Your task to perform on an android device: Open the web browser Image 0: 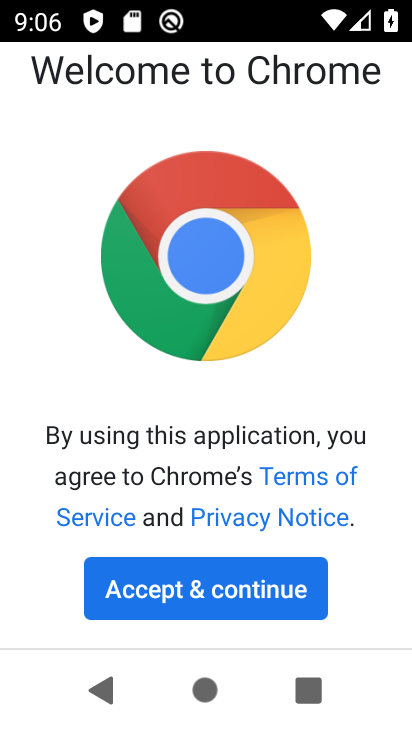
Step 0: press home button
Your task to perform on an android device: Open the web browser Image 1: 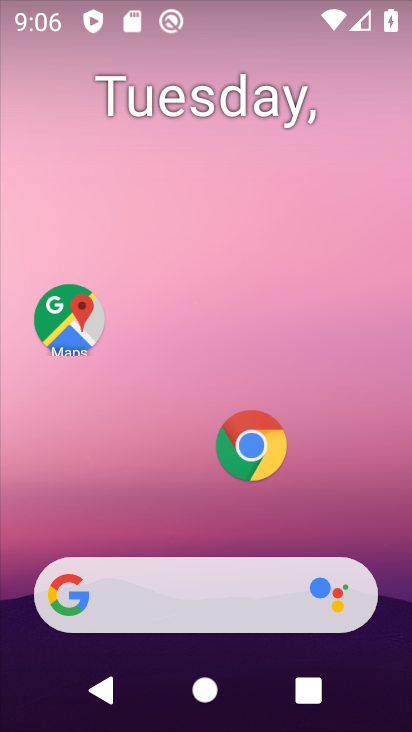
Step 1: click (258, 473)
Your task to perform on an android device: Open the web browser Image 2: 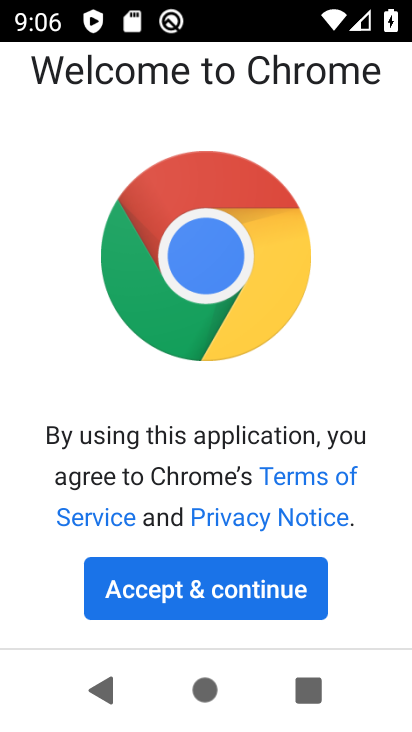
Step 2: click (187, 589)
Your task to perform on an android device: Open the web browser Image 3: 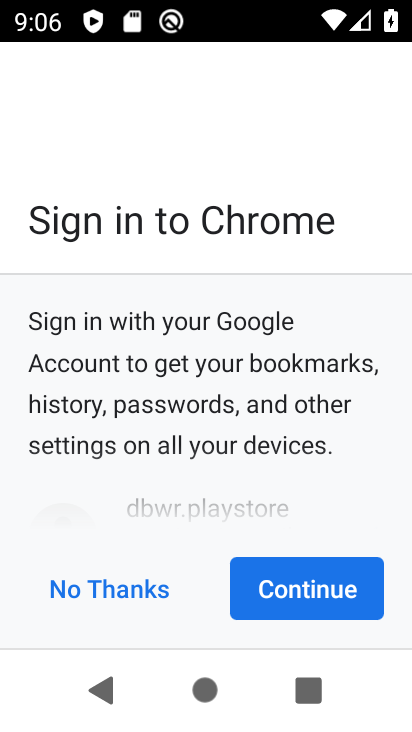
Step 3: click (281, 607)
Your task to perform on an android device: Open the web browser Image 4: 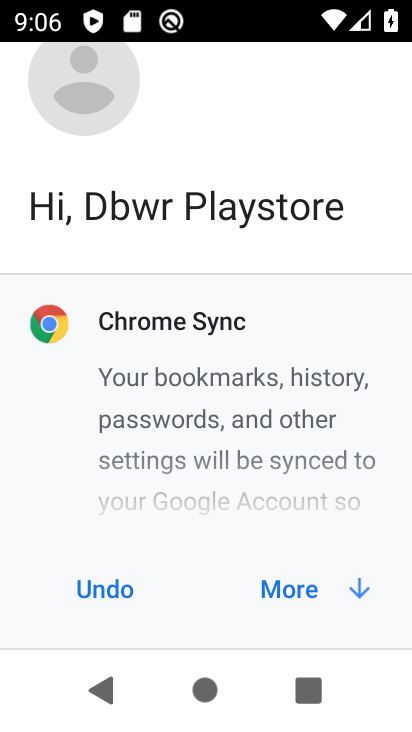
Step 4: task complete